Your task to perform on an android device: toggle pop-ups in chrome Image 0: 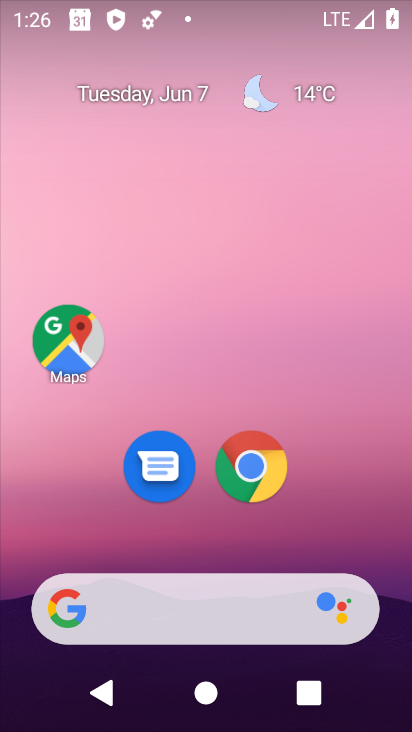
Step 0: drag from (173, 583) to (252, 68)
Your task to perform on an android device: toggle pop-ups in chrome Image 1: 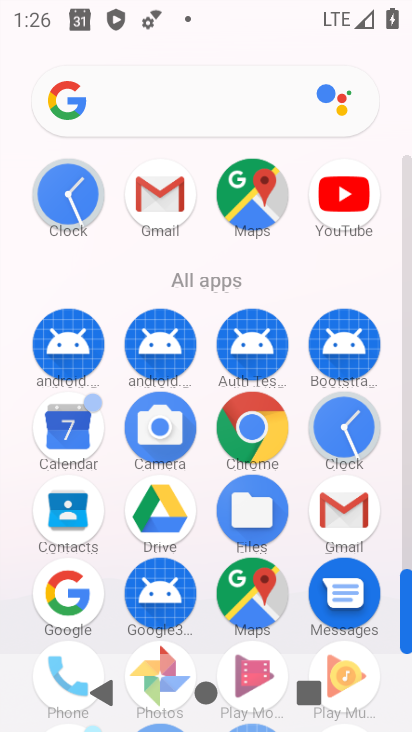
Step 1: click (329, 425)
Your task to perform on an android device: toggle pop-ups in chrome Image 2: 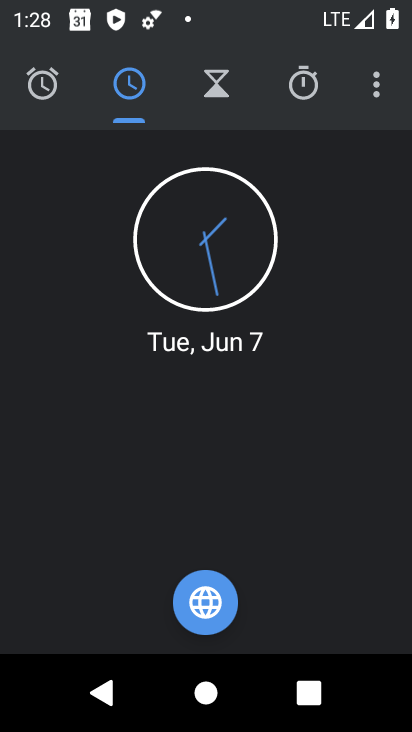
Step 2: press back button
Your task to perform on an android device: toggle pop-ups in chrome Image 3: 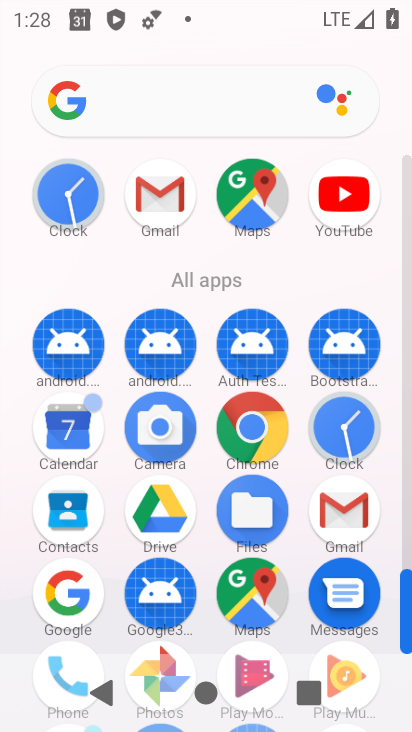
Step 3: click (245, 427)
Your task to perform on an android device: toggle pop-ups in chrome Image 4: 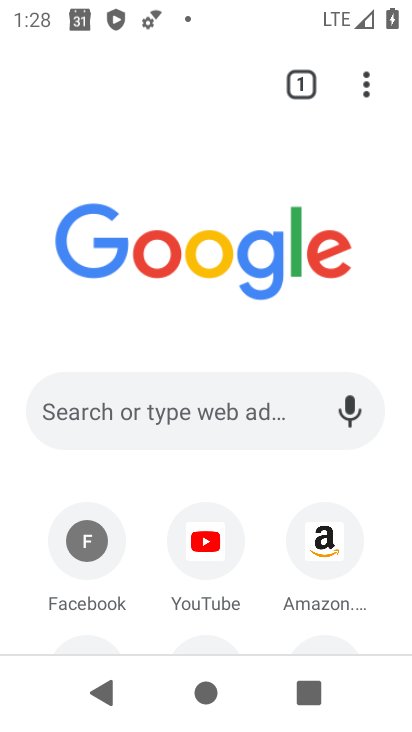
Step 4: drag from (366, 79) to (71, 517)
Your task to perform on an android device: toggle pop-ups in chrome Image 5: 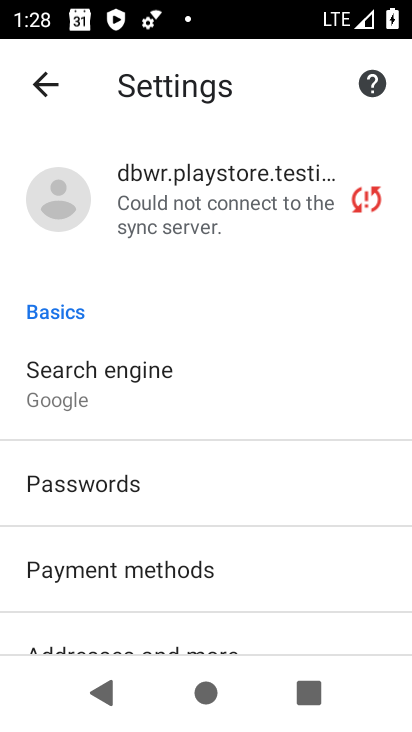
Step 5: drag from (177, 634) to (232, 122)
Your task to perform on an android device: toggle pop-ups in chrome Image 6: 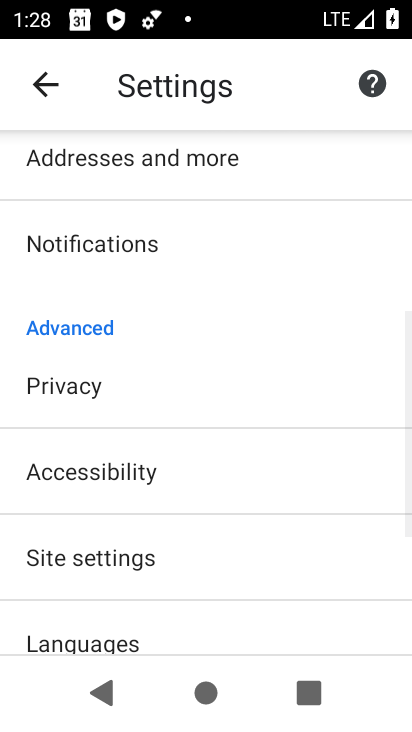
Step 6: click (101, 558)
Your task to perform on an android device: toggle pop-ups in chrome Image 7: 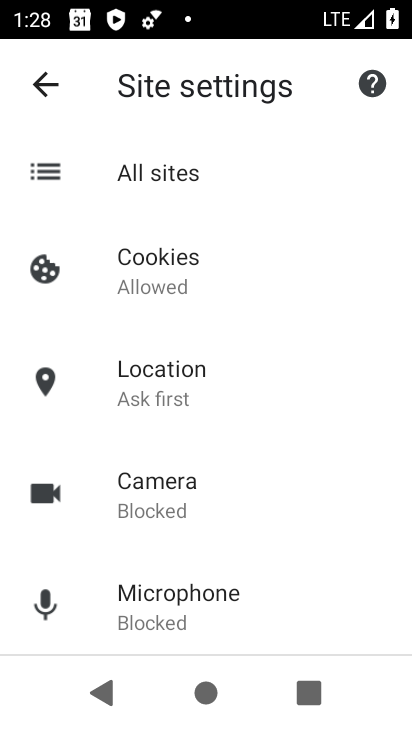
Step 7: drag from (182, 609) to (245, 170)
Your task to perform on an android device: toggle pop-ups in chrome Image 8: 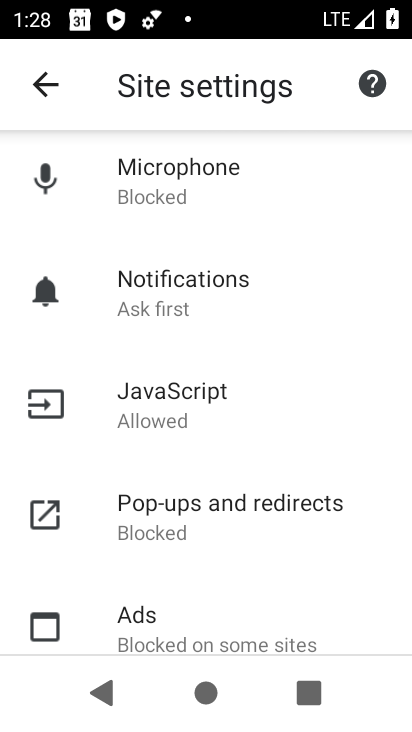
Step 8: click (173, 516)
Your task to perform on an android device: toggle pop-ups in chrome Image 9: 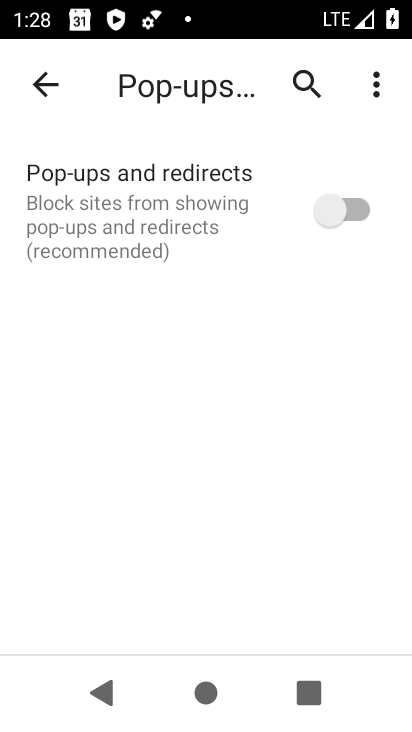
Step 9: click (344, 210)
Your task to perform on an android device: toggle pop-ups in chrome Image 10: 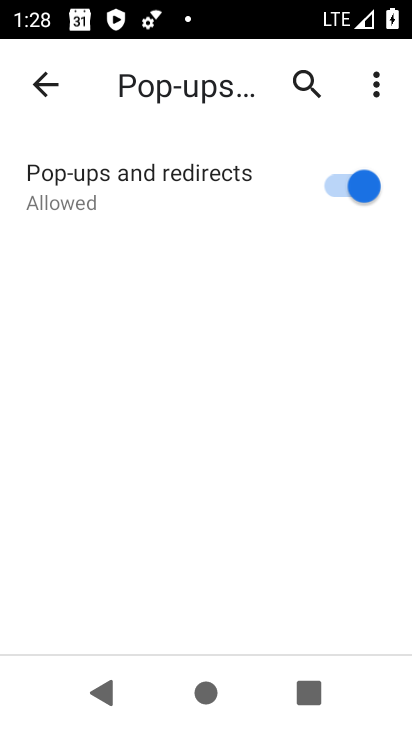
Step 10: task complete